Your task to perform on an android device: change the clock display to show seconds Image 0: 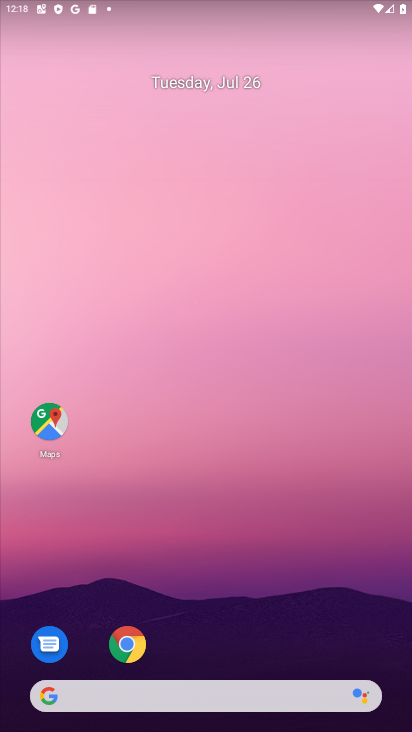
Step 0: drag from (256, 610) to (243, 19)
Your task to perform on an android device: change the clock display to show seconds Image 1: 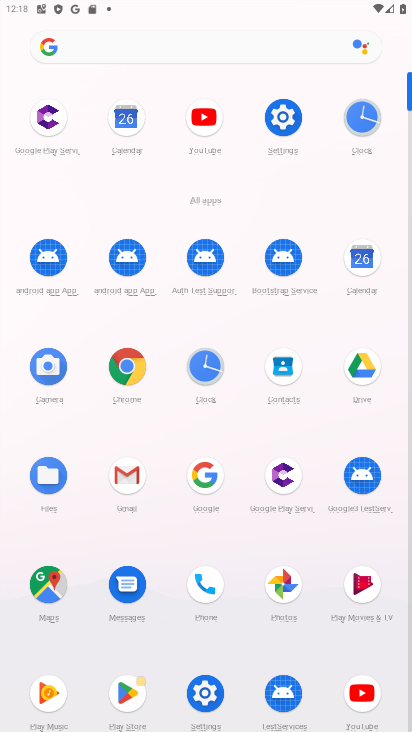
Step 1: click (363, 117)
Your task to perform on an android device: change the clock display to show seconds Image 2: 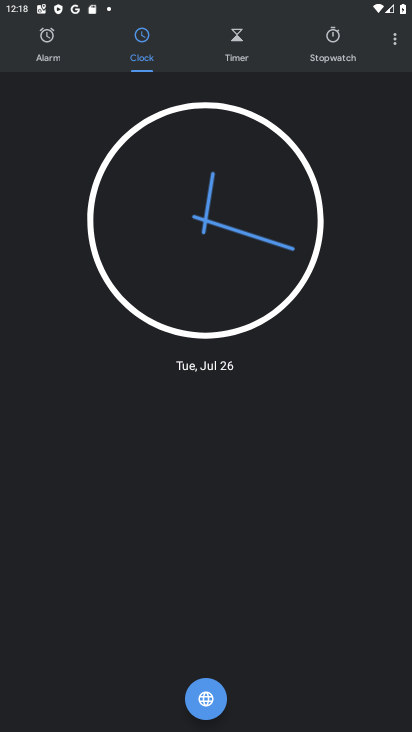
Step 2: click (398, 45)
Your task to perform on an android device: change the clock display to show seconds Image 3: 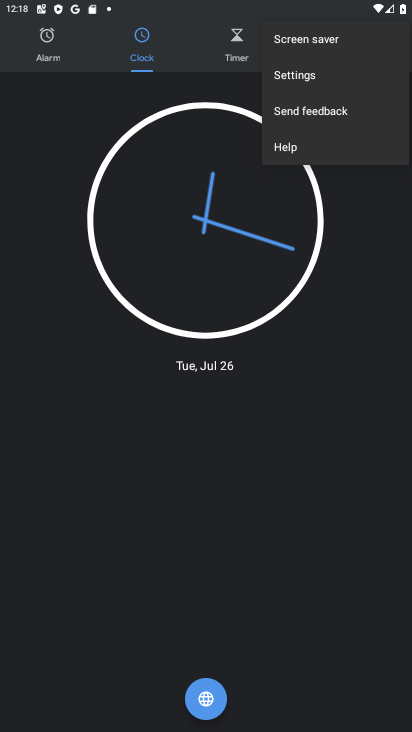
Step 3: click (304, 80)
Your task to perform on an android device: change the clock display to show seconds Image 4: 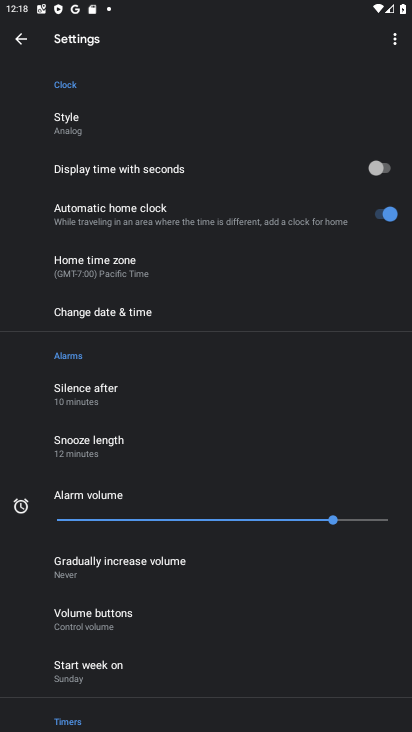
Step 4: click (375, 171)
Your task to perform on an android device: change the clock display to show seconds Image 5: 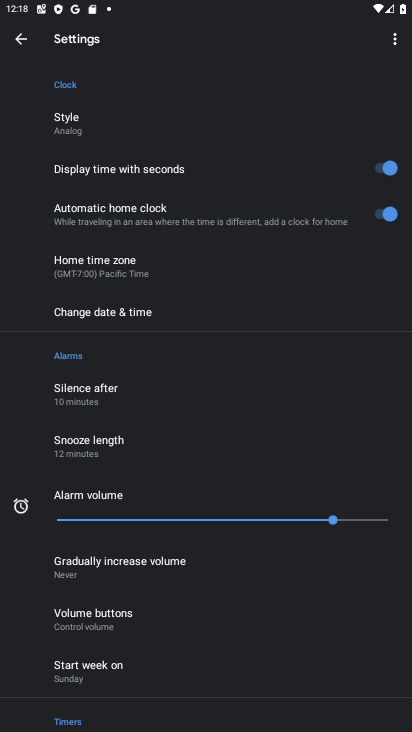
Step 5: task complete